Your task to perform on an android device: check battery use Image 0: 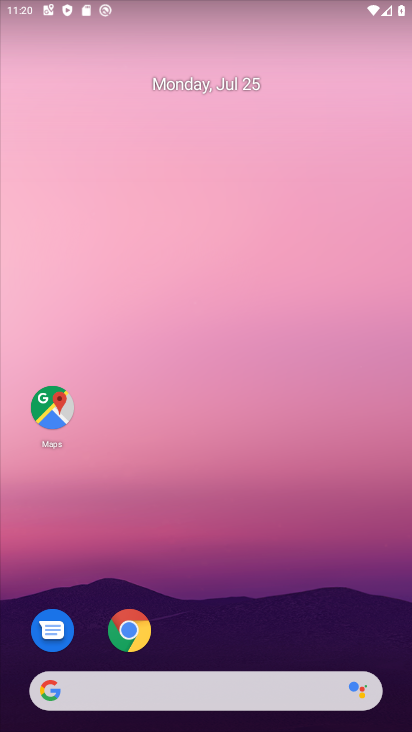
Step 0: drag from (285, 584) to (285, 196)
Your task to perform on an android device: check battery use Image 1: 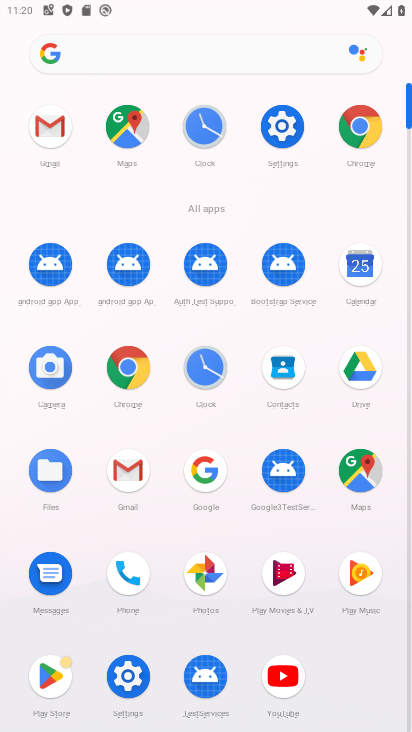
Step 1: click (287, 115)
Your task to perform on an android device: check battery use Image 2: 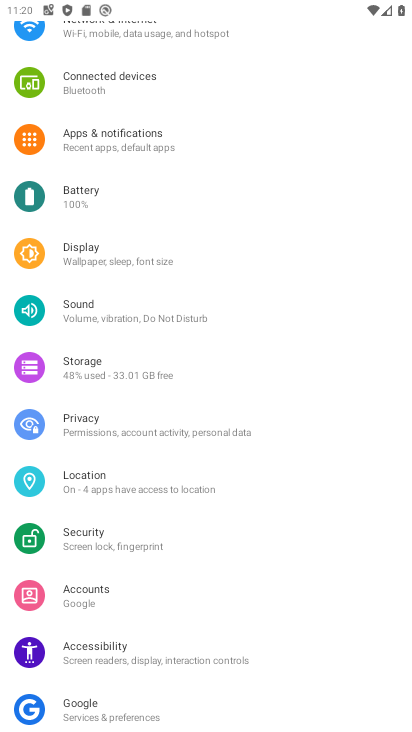
Step 2: click (93, 199)
Your task to perform on an android device: check battery use Image 3: 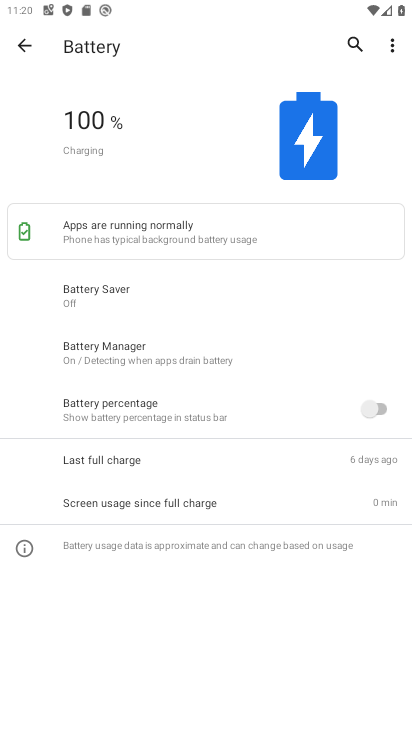
Step 3: click (397, 44)
Your task to perform on an android device: check battery use Image 4: 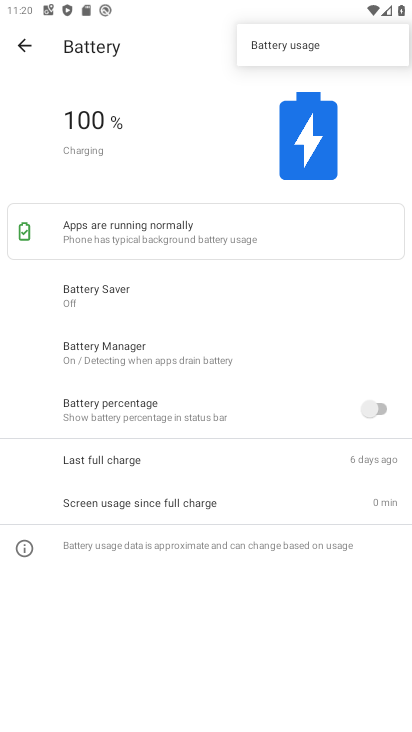
Step 4: click (306, 44)
Your task to perform on an android device: check battery use Image 5: 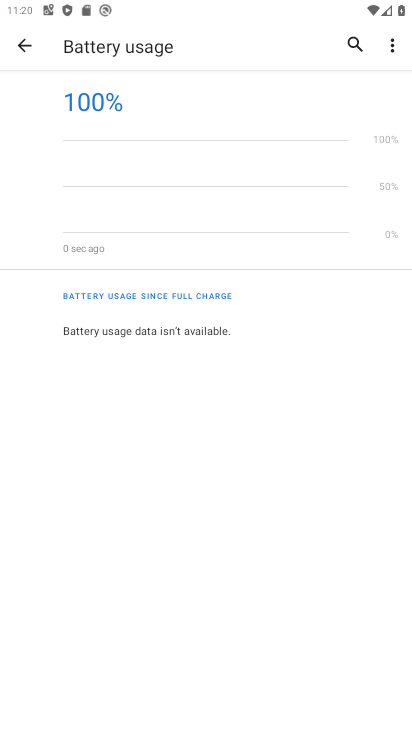
Step 5: task complete